Your task to perform on an android device: Open the calendar and show me this week's events Image 0: 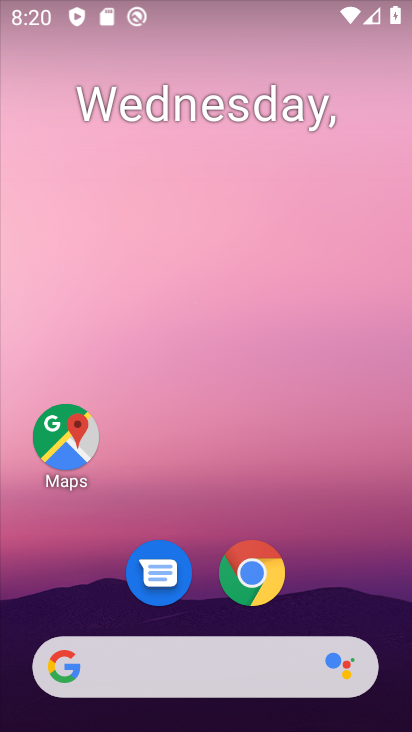
Step 0: drag from (213, 631) to (211, 88)
Your task to perform on an android device: Open the calendar and show me this week's events Image 1: 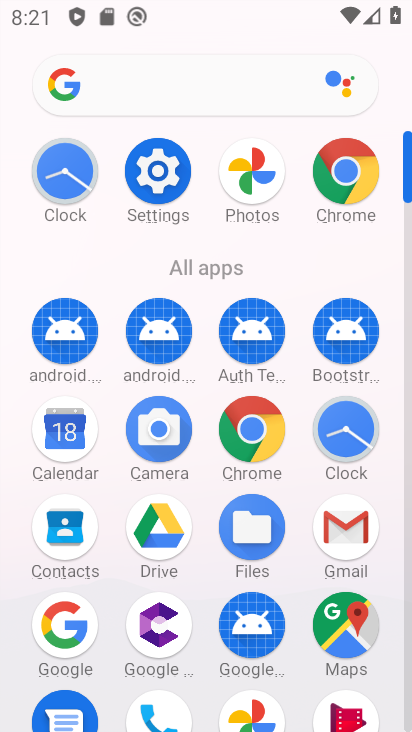
Step 1: drag from (205, 596) to (169, 72)
Your task to perform on an android device: Open the calendar and show me this week's events Image 2: 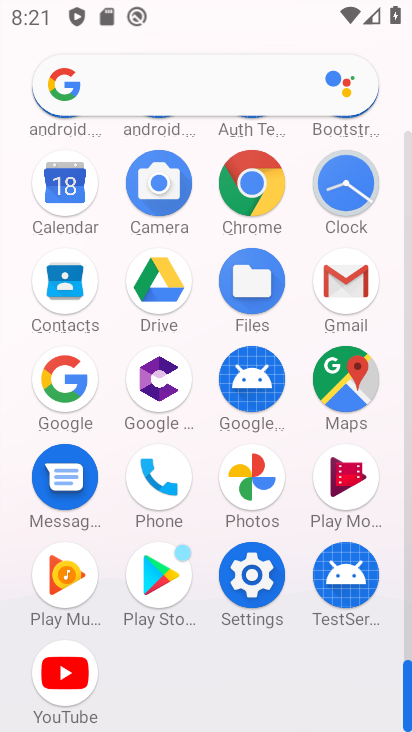
Step 2: drag from (267, 345) to (243, 664)
Your task to perform on an android device: Open the calendar and show me this week's events Image 3: 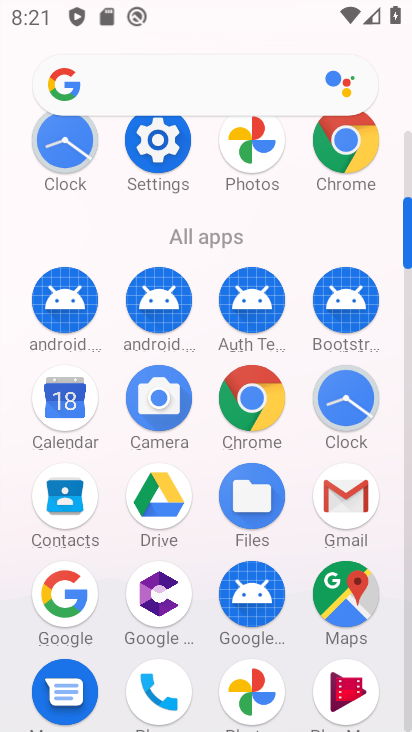
Step 3: drag from (162, 399) to (193, 592)
Your task to perform on an android device: Open the calendar and show me this week's events Image 4: 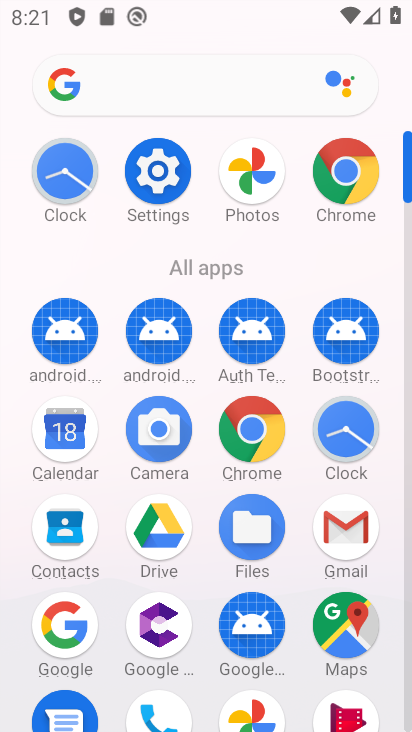
Step 4: click (55, 429)
Your task to perform on an android device: Open the calendar and show me this week's events Image 5: 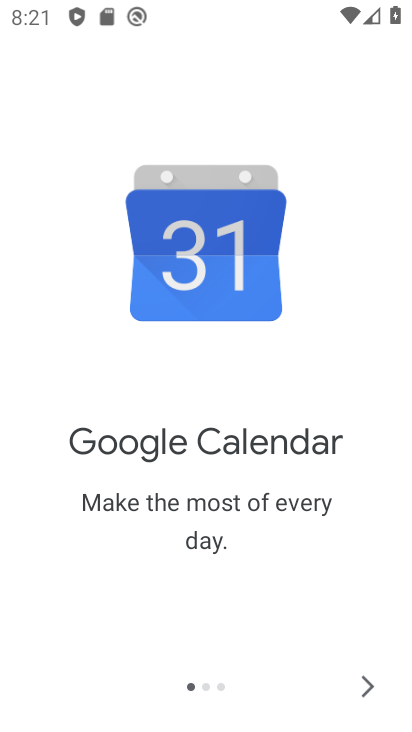
Step 5: click (365, 694)
Your task to perform on an android device: Open the calendar and show me this week's events Image 6: 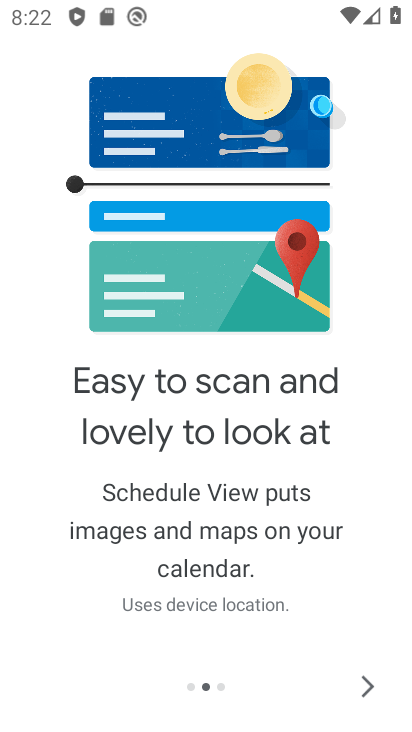
Step 6: click (359, 697)
Your task to perform on an android device: Open the calendar and show me this week's events Image 7: 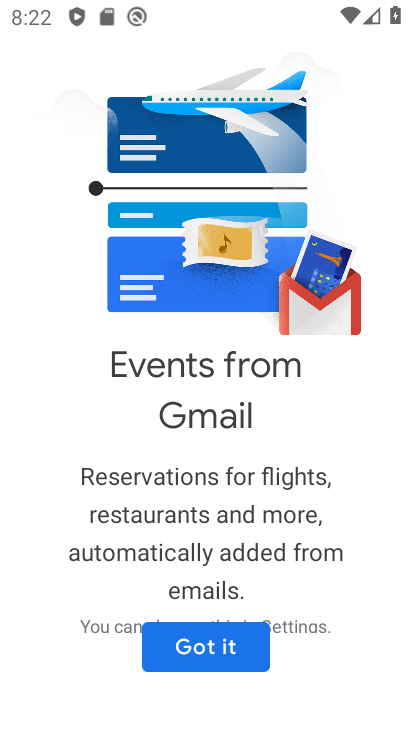
Step 7: click (254, 670)
Your task to perform on an android device: Open the calendar and show me this week's events Image 8: 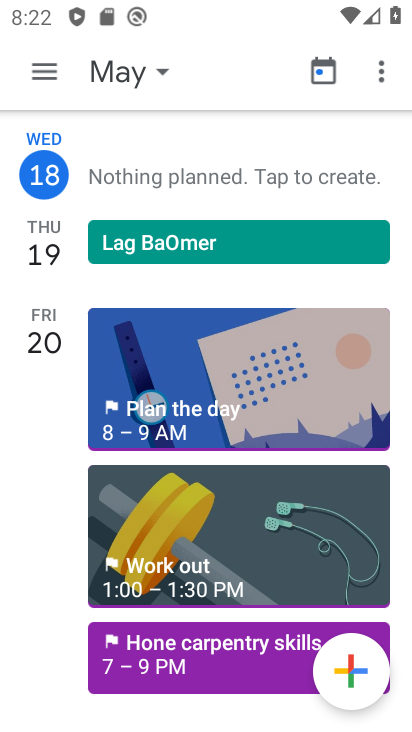
Step 8: click (136, 79)
Your task to perform on an android device: Open the calendar and show me this week's events Image 9: 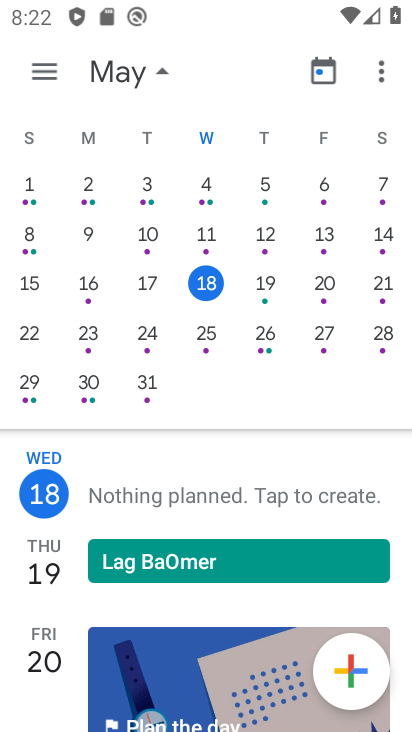
Step 9: task complete